Your task to perform on an android device: add a contact in the contacts app Image 0: 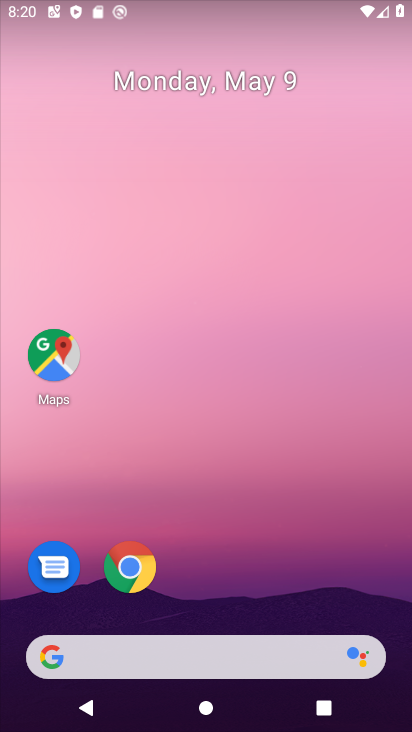
Step 0: drag from (357, 593) to (322, 121)
Your task to perform on an android device: add a contact in the contacts app Image 1: 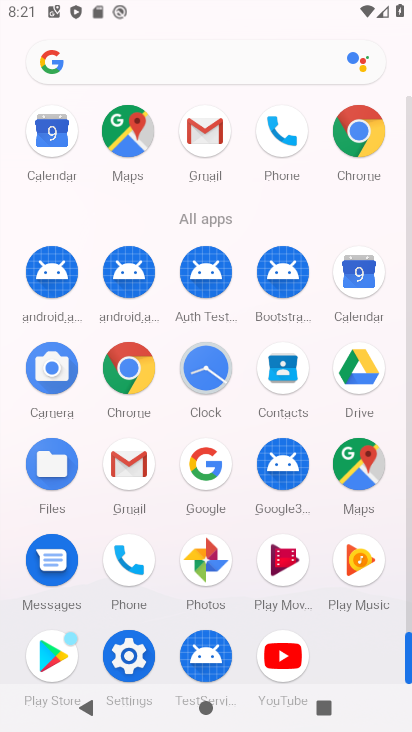
Step 1: click (270, 366)
Your task to perform on an android device: add a contact in the contacts app Image 2: 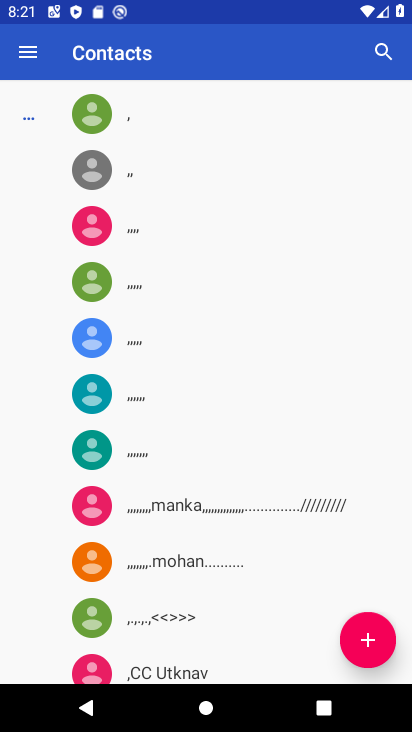
Step 2: click (360, 641)
Your task to perform on an android device: add a contact in the contacts app Image 3: 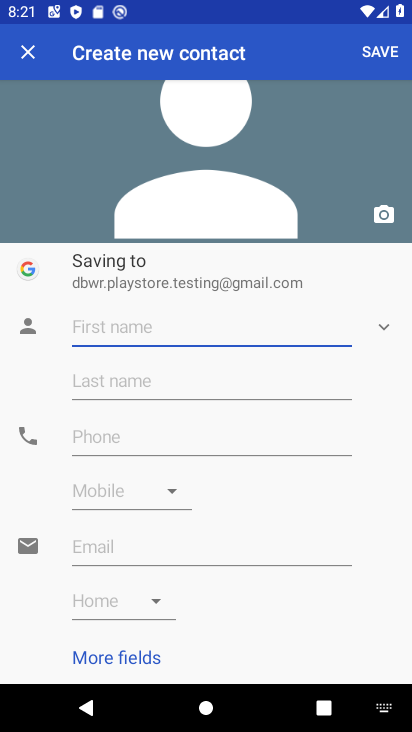
Step 3: click (210, 328)
Your task to perform on an android device: add a contact in the contacts app Image 4: 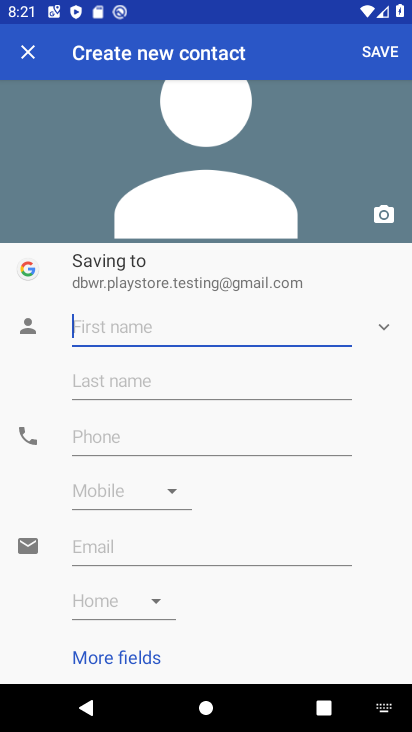
Step 4: type "suraj"
Your task to perform on an android device: add a contact in the contacts app Image 5: 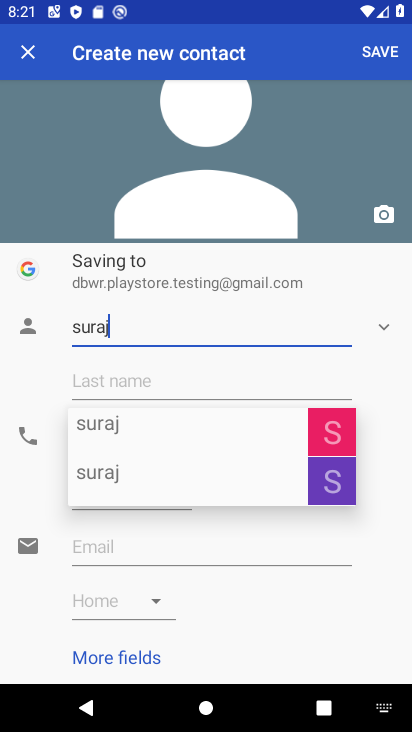
Step 5: click (281, 429)
Your task to perform on an android device: add a contact in the contacts app Image 6: 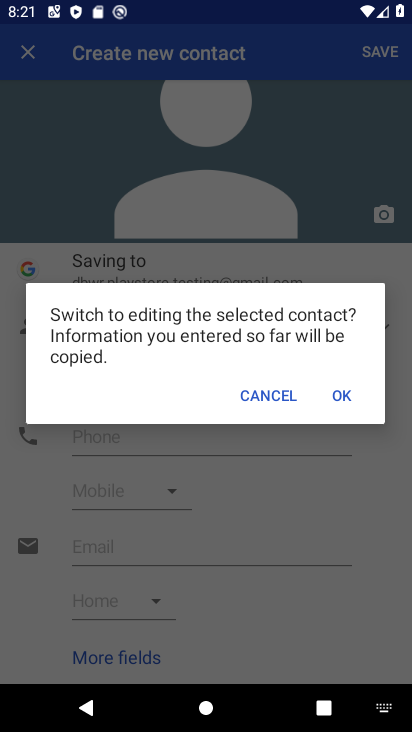
Step 6: click (272, 393)
Your task to perform on an android device: add a contact in the contacts app Image 7: 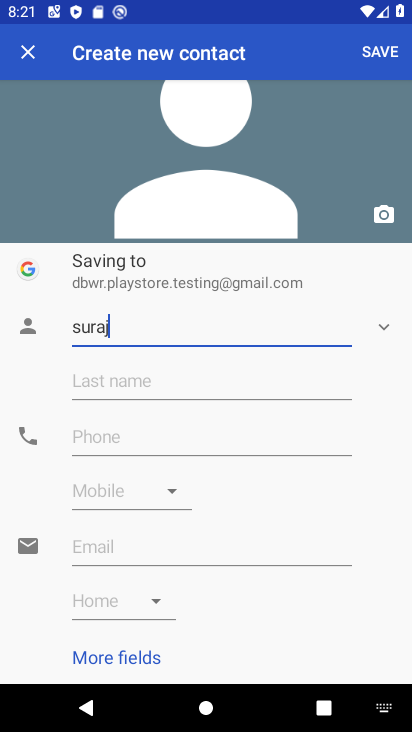
Step 7: click (268, 443)
Your task to perform on an android device: add a contact in the contacts app Image 8: 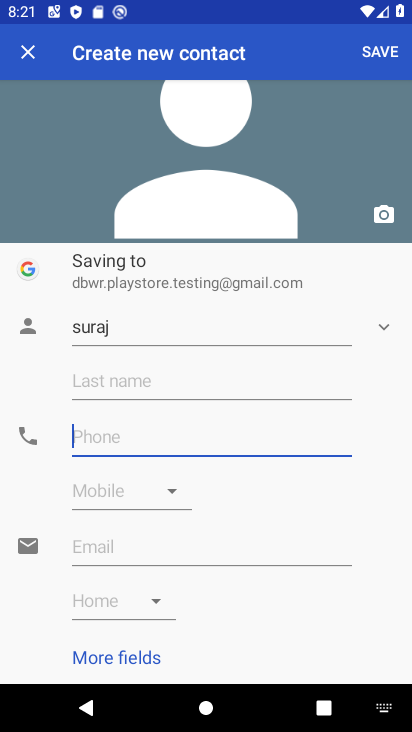
Step 8: type "3293209233843"
Your task to perform on an android device: add a contact in the contacts app Image 9: 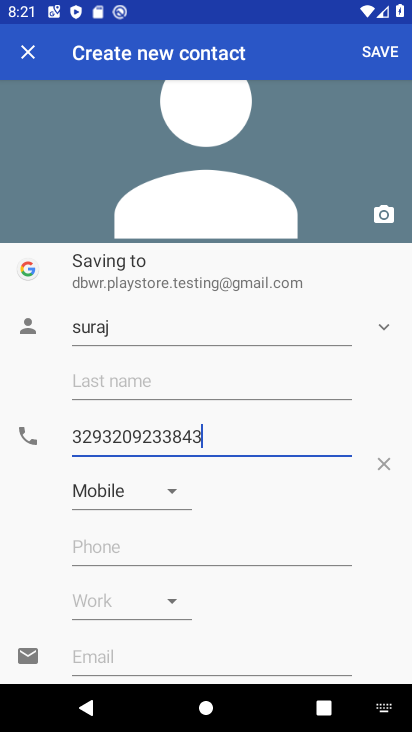
Step 9: click (370, 55)
Your task to perform on an android device: add a contact in the contacts app Image 10: 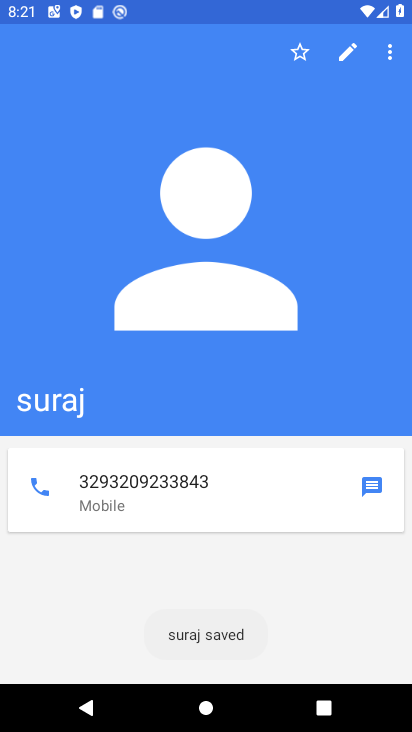
Step 10: task complete